Your task to perform on an android device: open wifi settings Image 0: 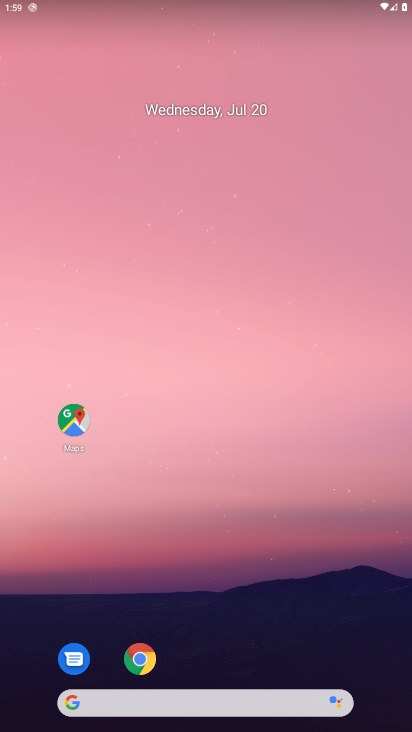
Step 0: drag from (36, 622) to (231, 6)
Your task to perform on an android device: open wifi settings Image 1: 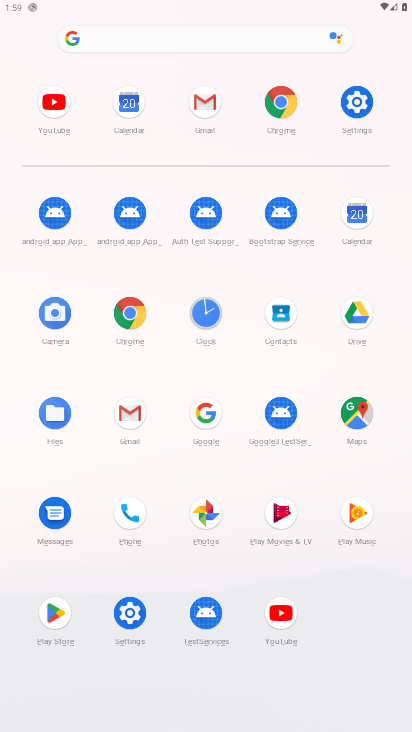
Step 1: click (132, 624)
Your task to perform on an android device: open wifi settings Image 2: 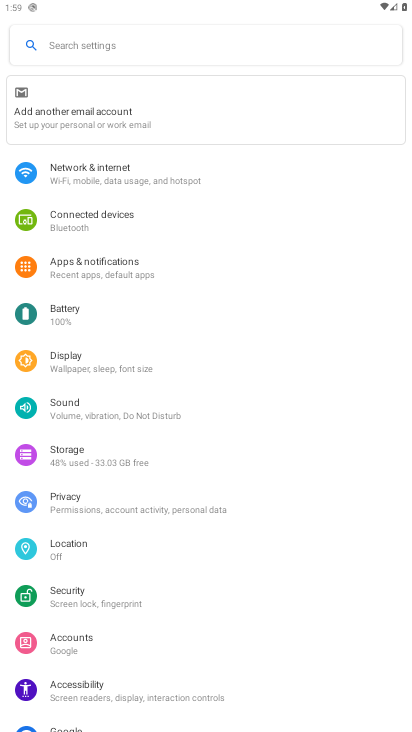
Step 2: click (150, 166)
Your task to perform on an android device: open wifi settings Image 3: 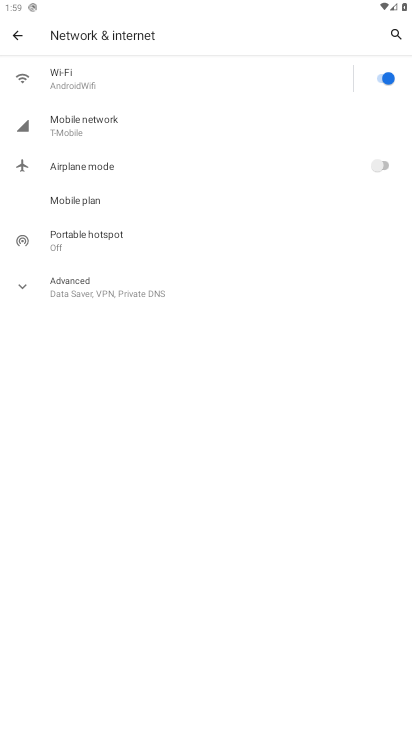
Step 3: task complete